Your task to perform on an android device: Open Amazon Image 0: 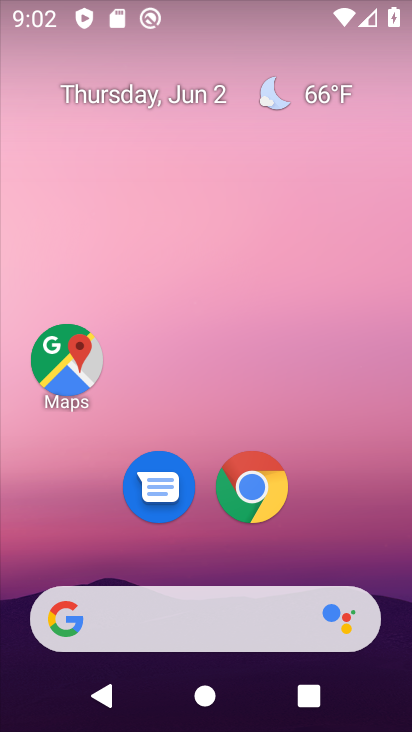
Step 0: click (247, 465)
Your task to perform on an android device: Open Amazon Image 1: 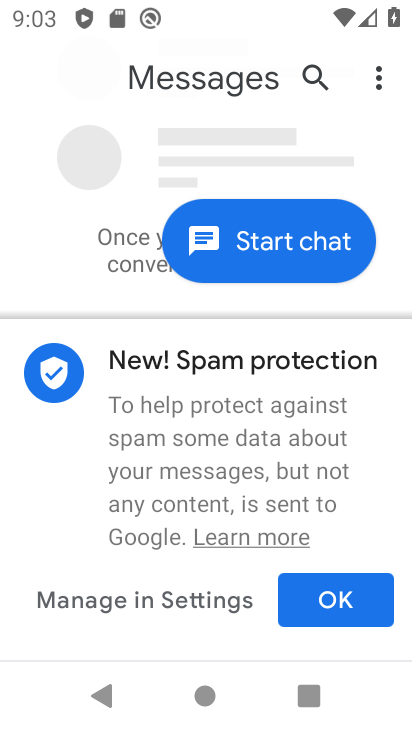
Step 1: press home button
Your task to perform on an android device: Open Amazon Image 2: 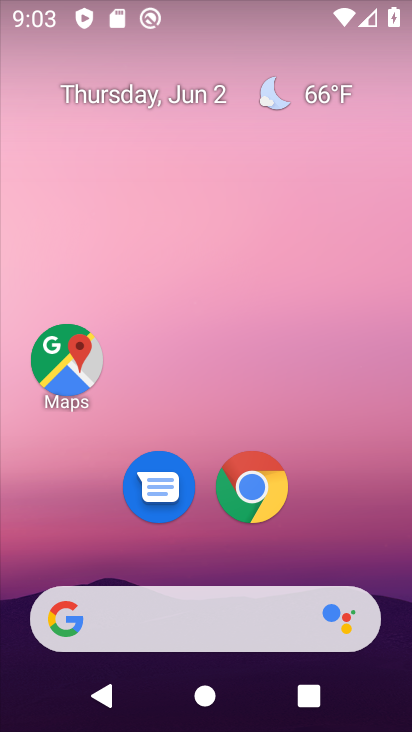
Step 2: click (248, 488)
Your task to perform on an android device: Open Amazon Image 3: 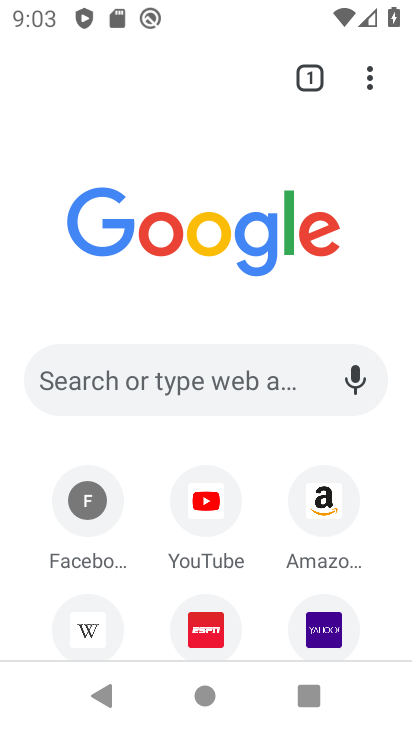
Step 3: click (313, 507)
Your task to perform on an android device: Open Amazon Image 4: 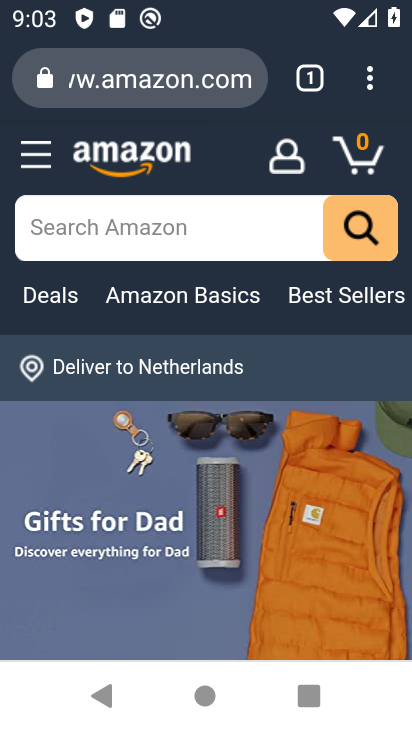
Step 4: task complete